Your task to perform on an android device: turn on the 12-hour format for clock Image 0: 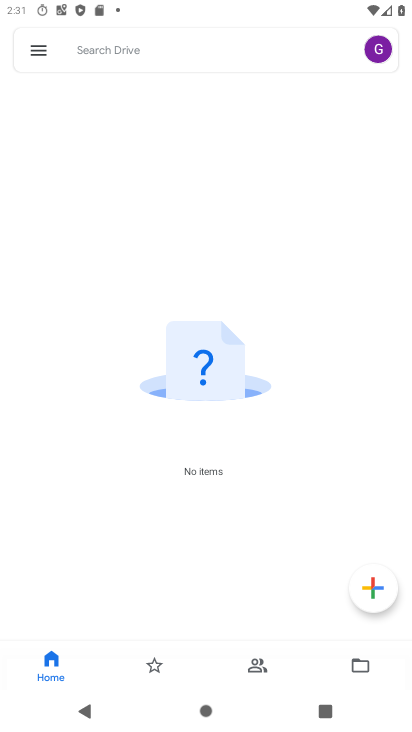
Step 0: press home button
Your task to perform on an android device: turn on the 12-hour format for clock Image 1: 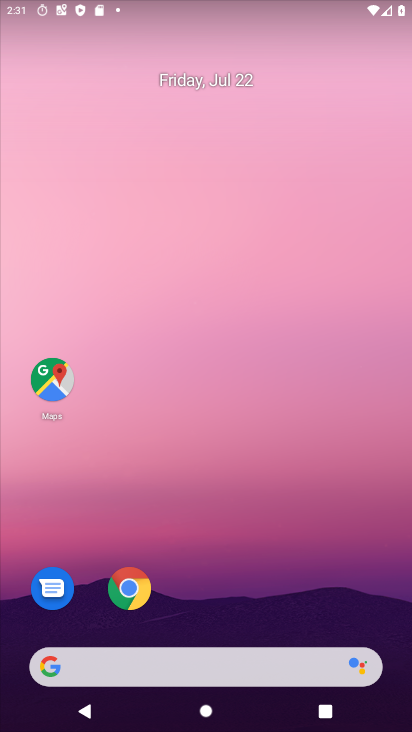
Step 1: drag from (207, 595) to (253, 86)
Your task to perform on an android device: turn on the 12-hour format for clock Image 2: 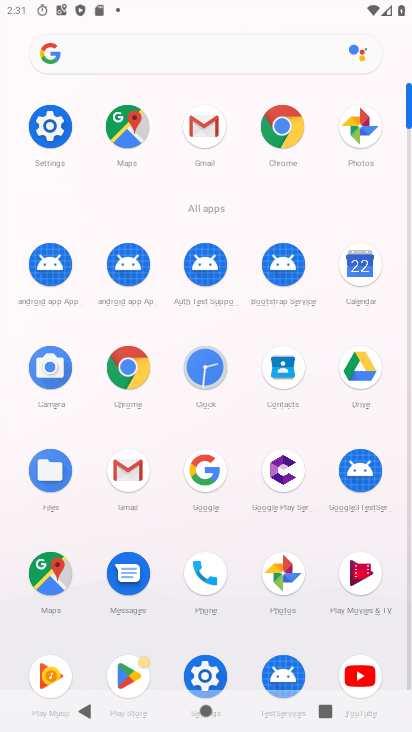
Step 2: click (204, 357)
Your task to perform on an android device: turn on the 12-hour format for clock Image 3: 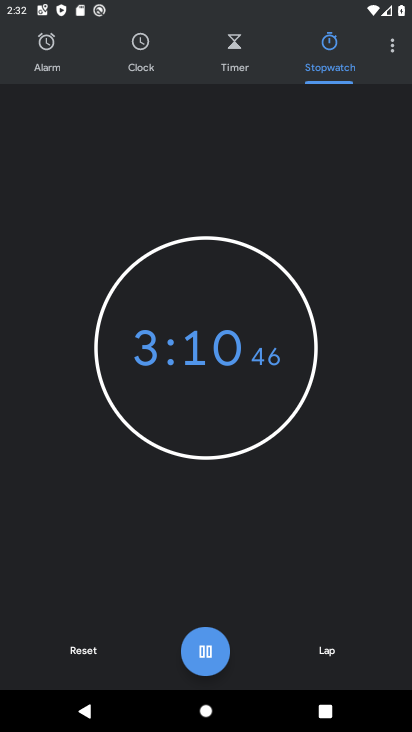
Step 3: click (385, 48)
Your task to perform on an android device: turn on the 12-hour format for clock Image 4: 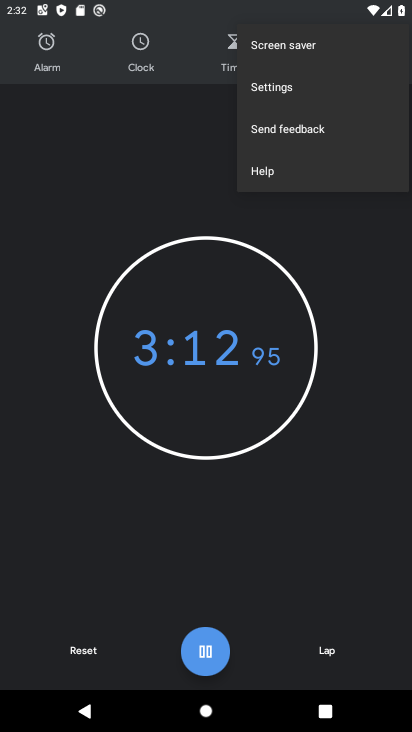
Step 4: click (287, 91)
Your task to perform on an android device: turn on the 12-hour format for clock Image 5: 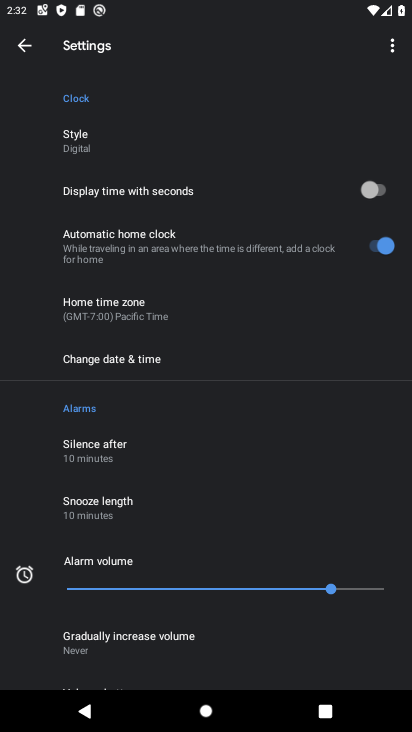
Step 5: click (174, 353)
Your task to perform on an android device: turn on the 12-hour format for clock Image 6: 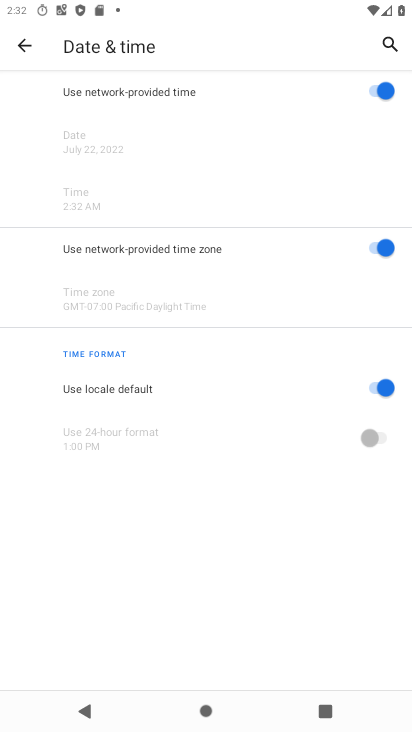
Step 6: task complete